Your task to perform on an android device: turn on notifications settings in the gmail app Image 0: 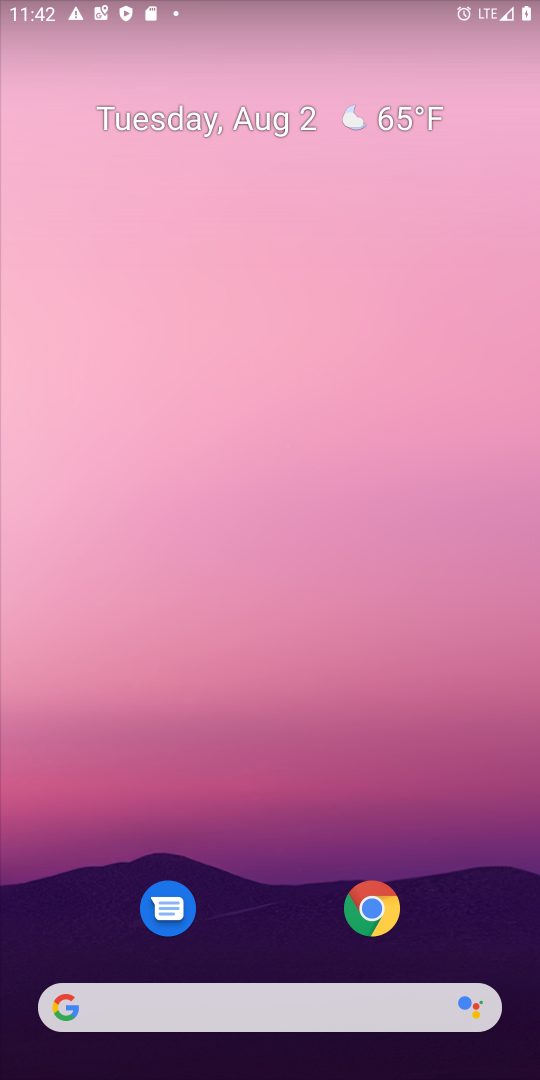
Step 0: drag from (255, 674) to (317, 0)
Your task to perform on an android device: turn on notifications settings in the gmail app Image 1: 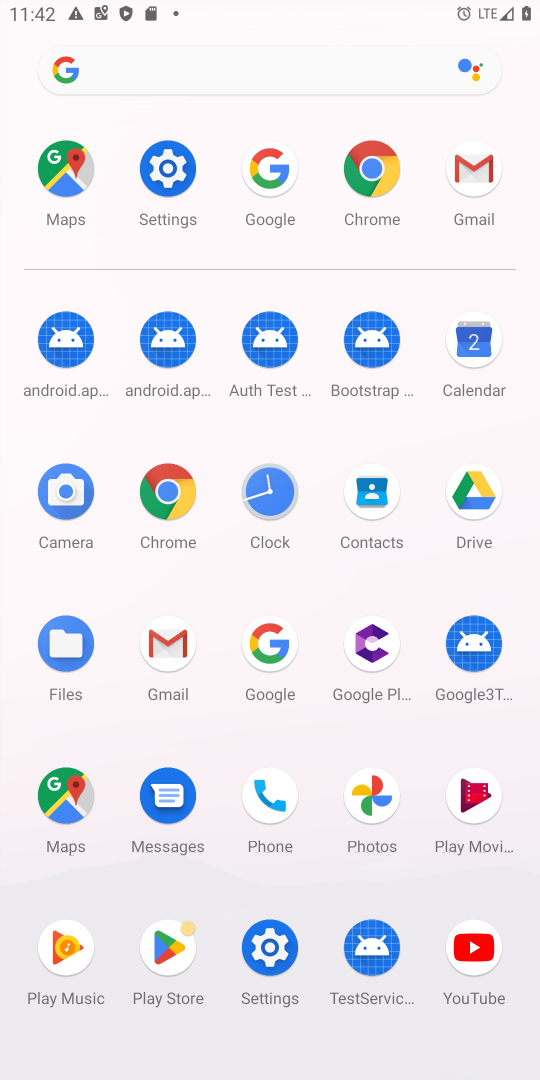
Step 1: click (169, 666)
Your task to perform on an android device: turn on notifications settings in the gmail app Image 2: 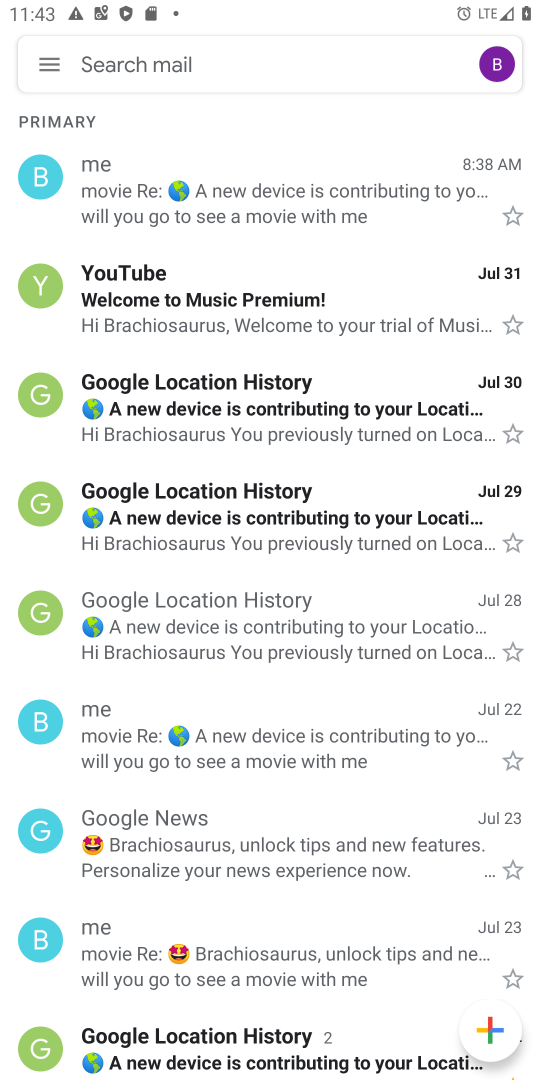
Step 2: click (51, 60)
Your task to perform on an android device: turn on notifications settings in the gmail app Image 3: 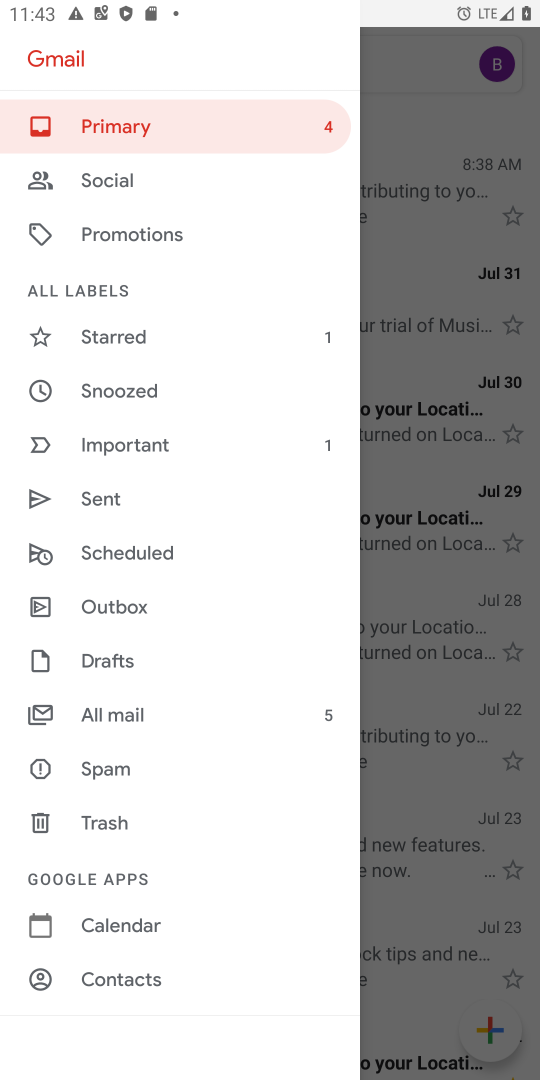
Step 3: drag from (171, 815) to (196, 105)
Your task to perform on an android device: turn on notifications settings in the gmail app Image 4: 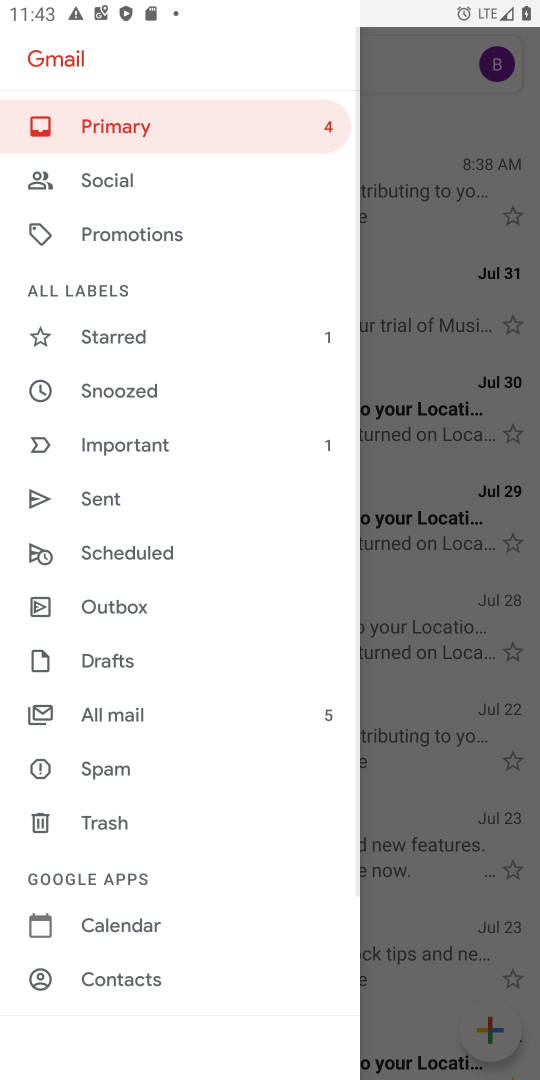
Step 4: drag from (120, 932) to (198, 117)
Your task to perform on an android device: turn on notifications settings in the gmail app Image 5: 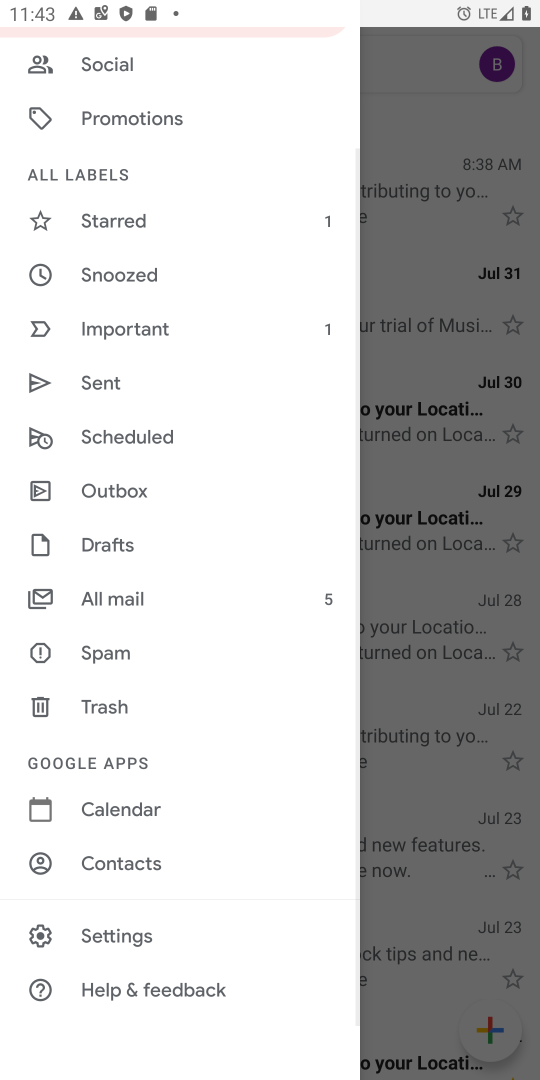
Step 5: click (143, 944)
Your task to perform on an android device: turn on notifications settings in the gmail app Image 6: 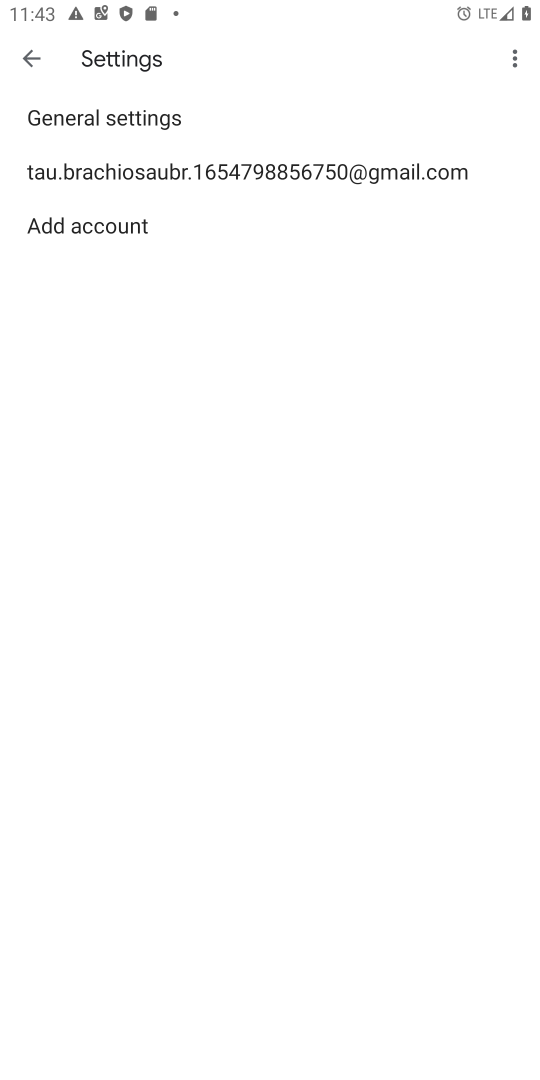
Step 6: click (292, 185)
Your task to perform on an android device: turn on notifications settings in the gmail app Image 7: 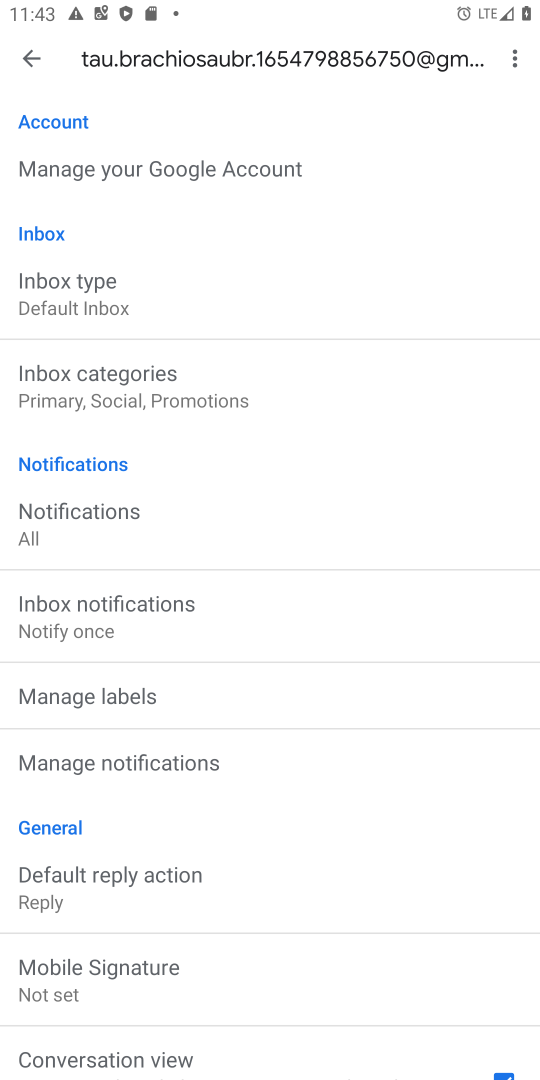
Step 7: click (214, 764)
Your task to perform on an android device: turn on notifications settings in the gmail app Image 8: 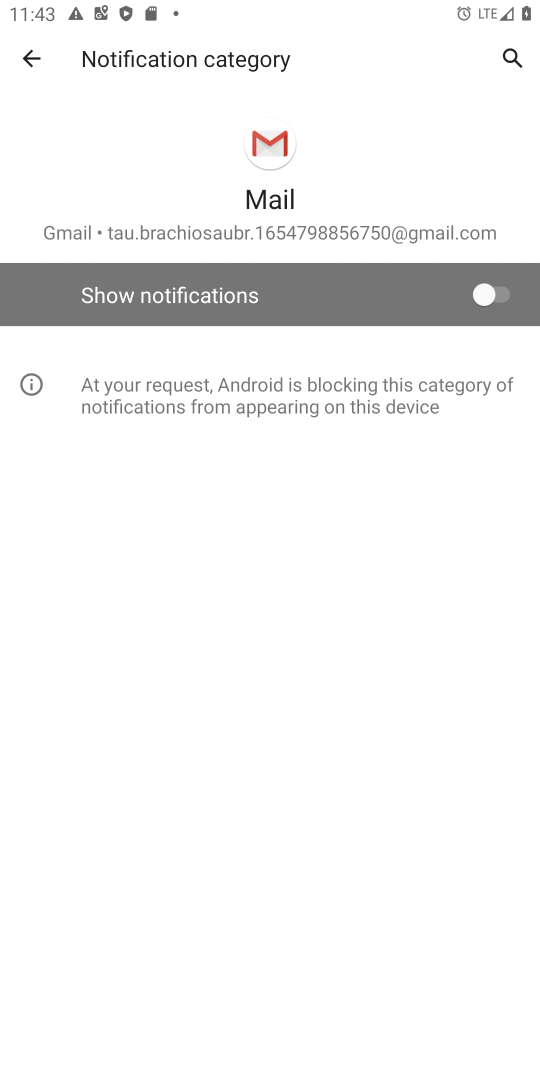
Step 8: click (476, 295)
Your task to perform on an android device: turn on notifications settings in the gmail app Image 9: 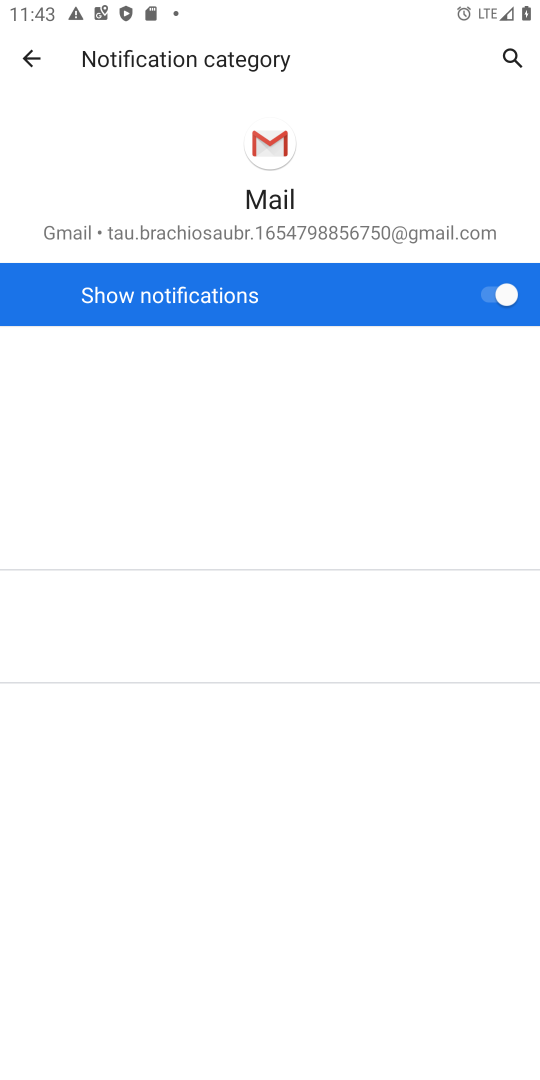
Step 9: task complete